Your task to perform on an android device: turn pop-ups off in chrome Image 0: 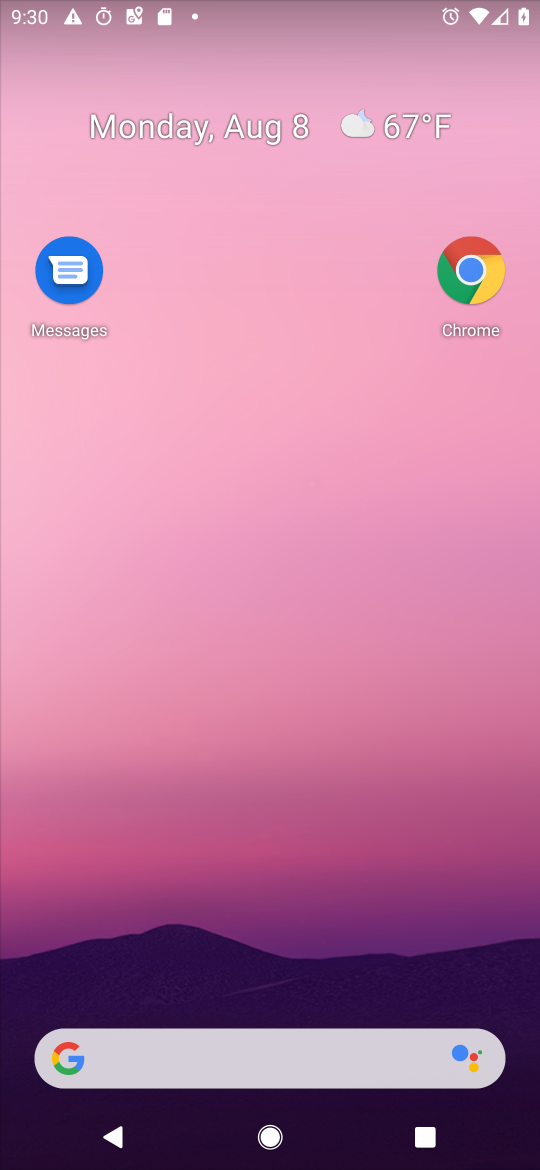
Step 0: click (446, 310)
Your task to perform on an android device: turn pop-ups off in chrome Image 1: 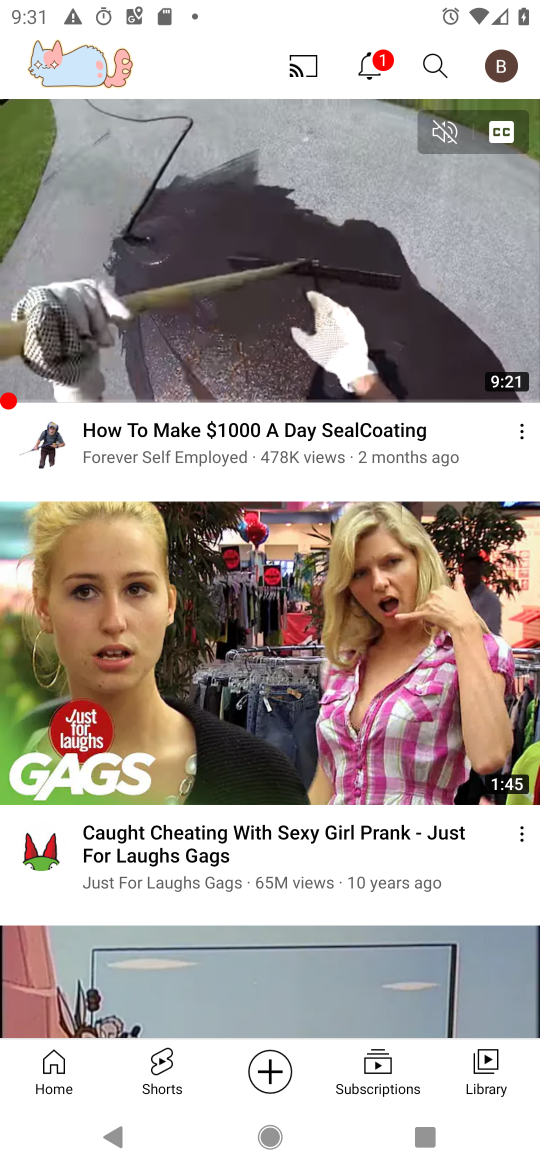
Step 1: drag from (360, 770) to (366, 437)
Your task to perform on an android device: turn pop-ups off in chrome Image 2: 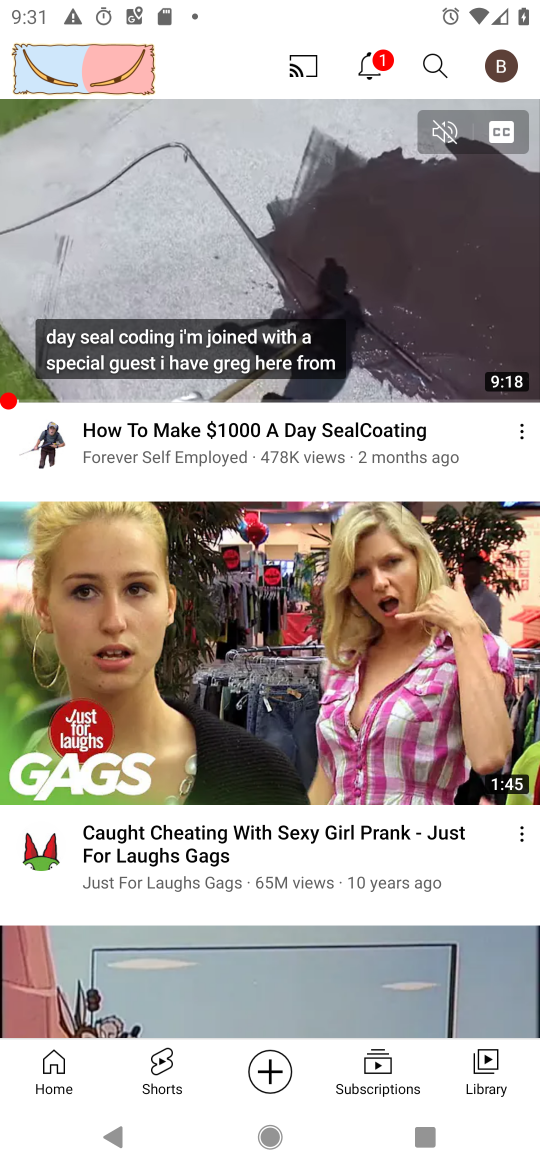
Step 2: press home button
Your task to perform on an android device: turn pop-ups off in chrome Image 3: 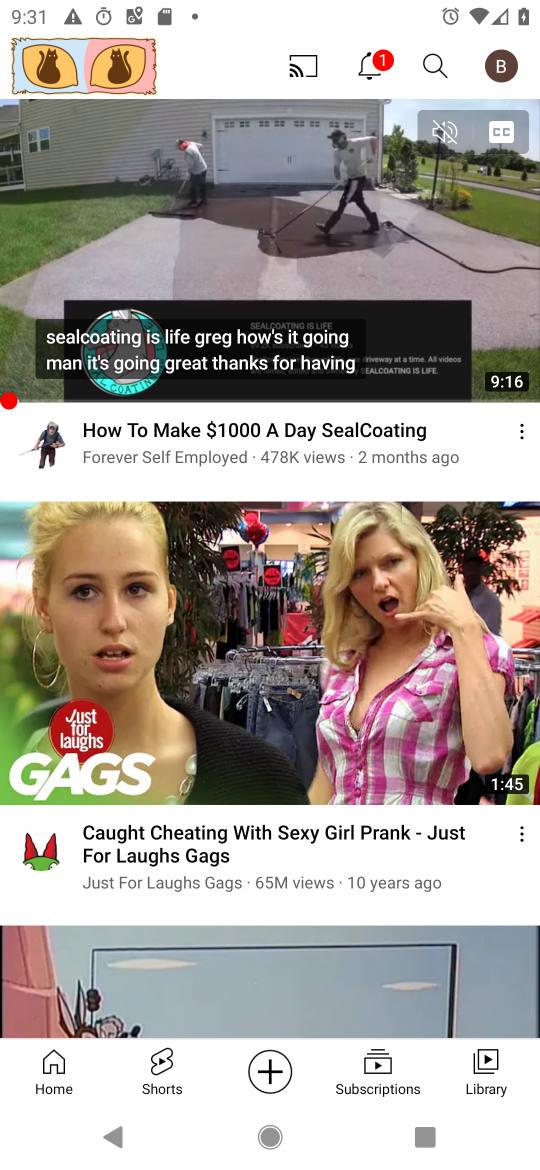
Step 3: drag from (186, 580) to (180, 377)
Your task to perform on an android device: turn pop-ups off in chrome Image 4: 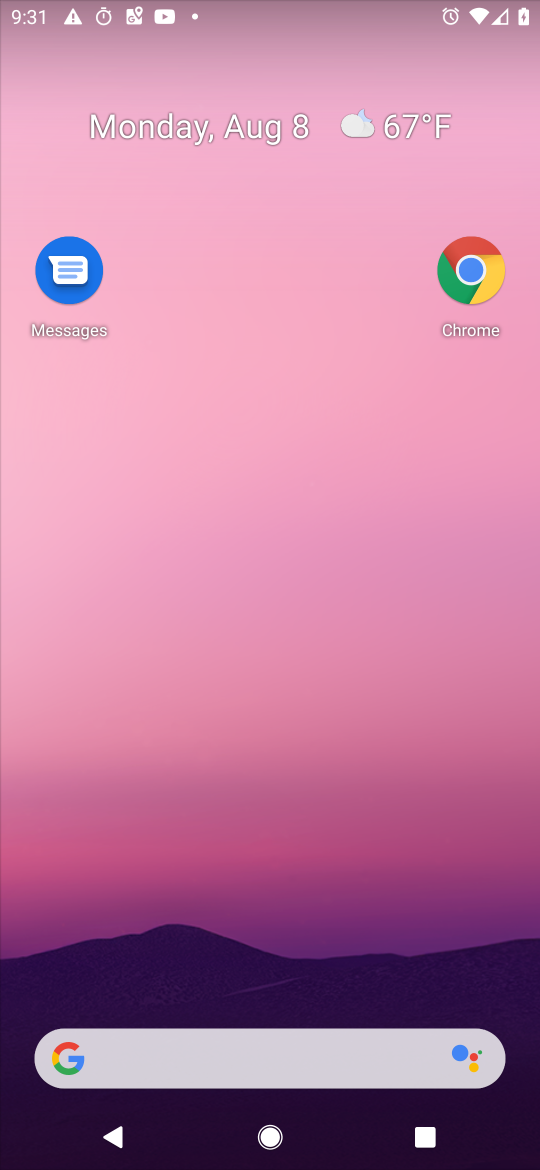
Step 4: click (470, 262)
Your task to perform on an android device: turn pop-ups off in chrome Image 5: 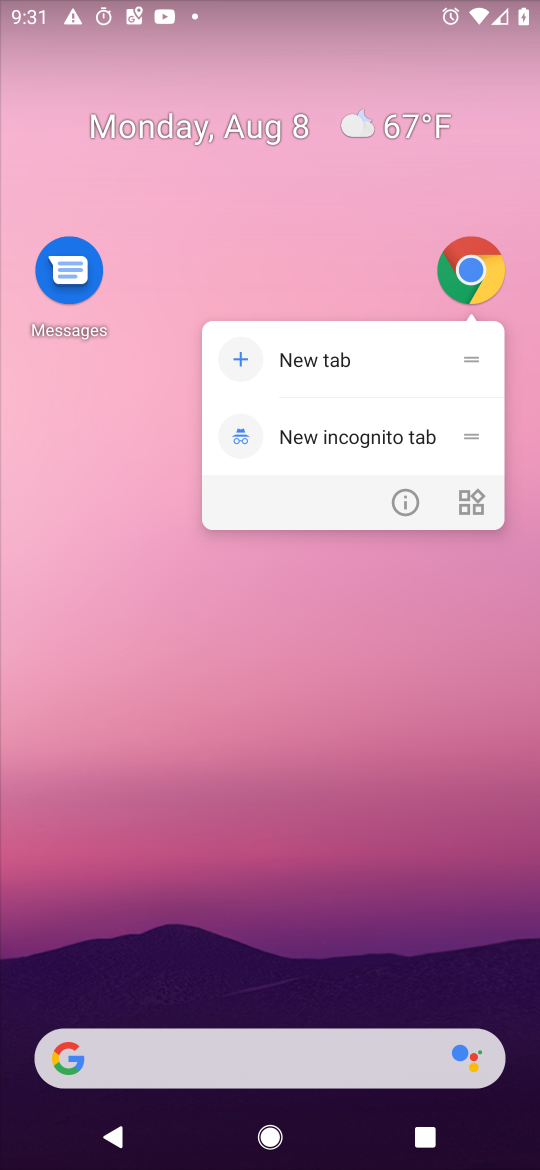
Step 5: click (403, 497)
Your task to perform on an android device: turn pop-ups off in chrome Image 6: 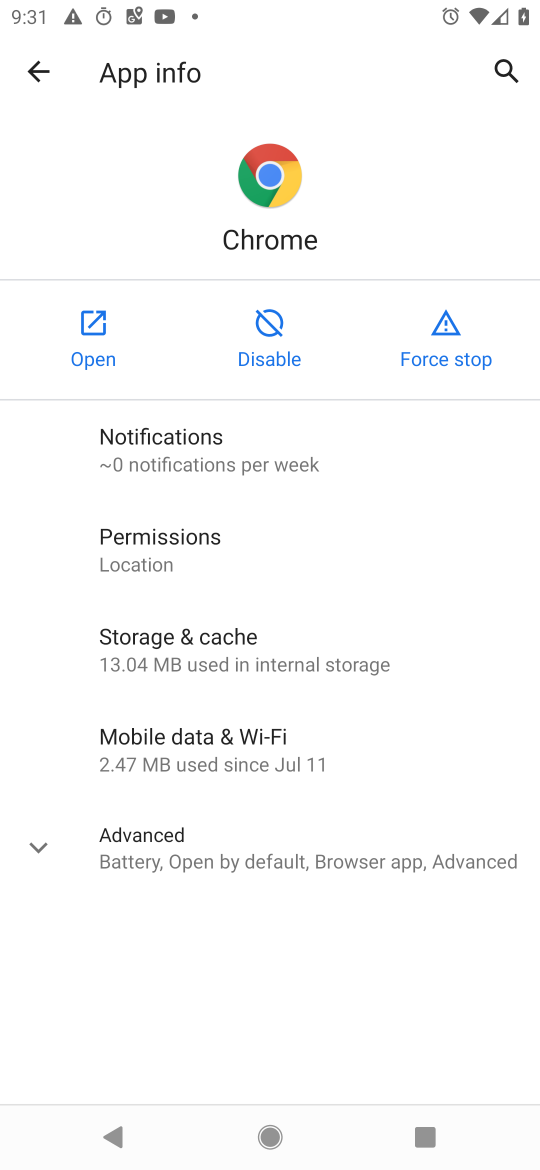
Step 6: click (69, 347)
Your task to perform on an android device: turn pop-ups off in chrome Image 7: 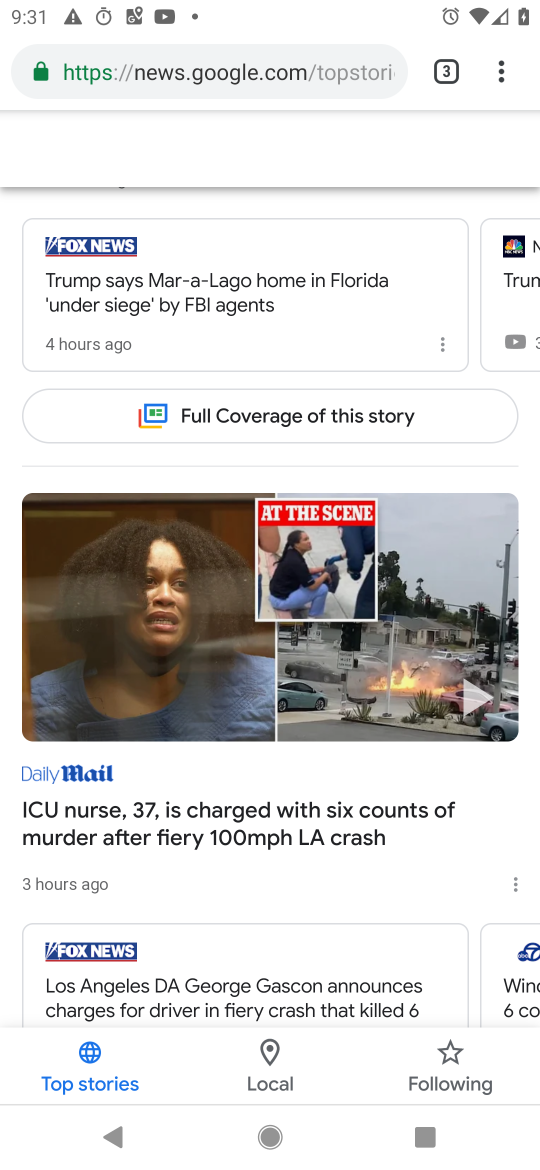
Step 7: drag from (501, 70) to (257, 840)
Your task to perform on an android device: turn pop-ups off in chrome Image 8: 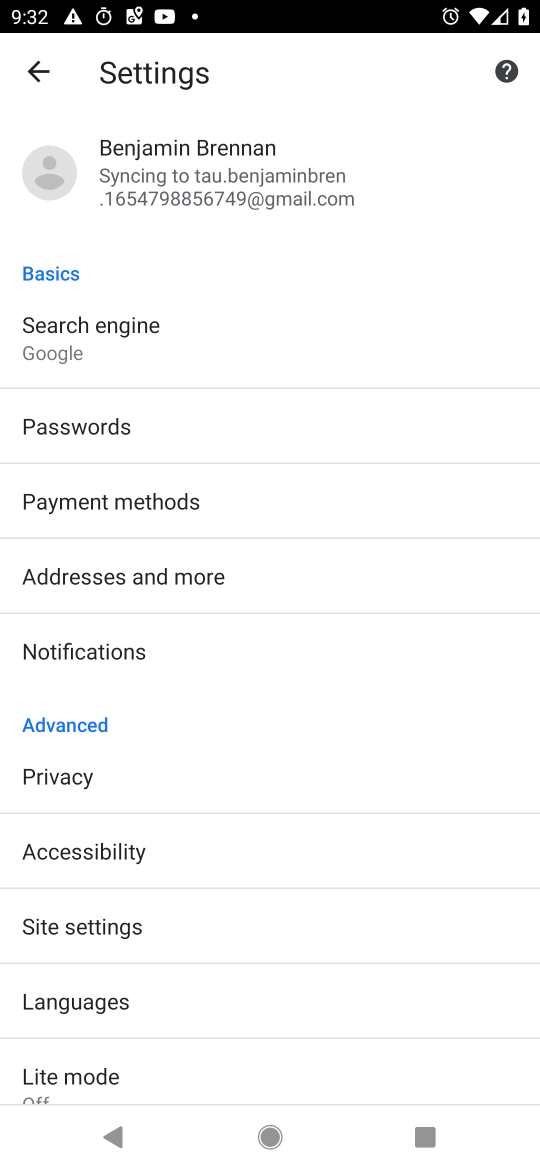
Step 8: drag from (249, 956) to (301, 492)
Your task to perform on an android device: turn pop-ups off in chrome Image 9: 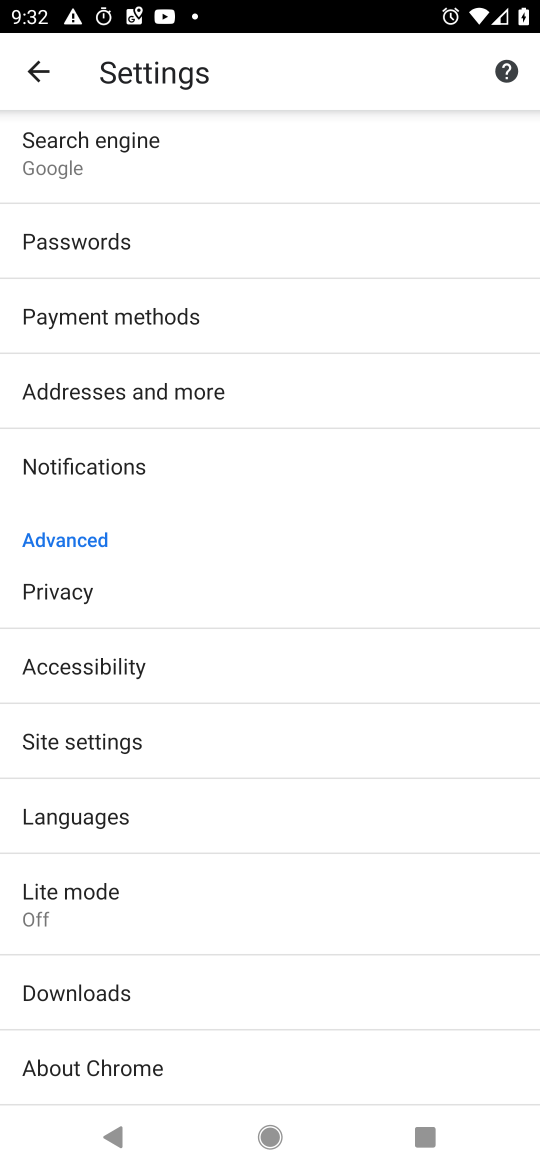
Step 9: click (170, 730)
Your task to perform on an android device: turn pop-ups off in chrome Image 10: 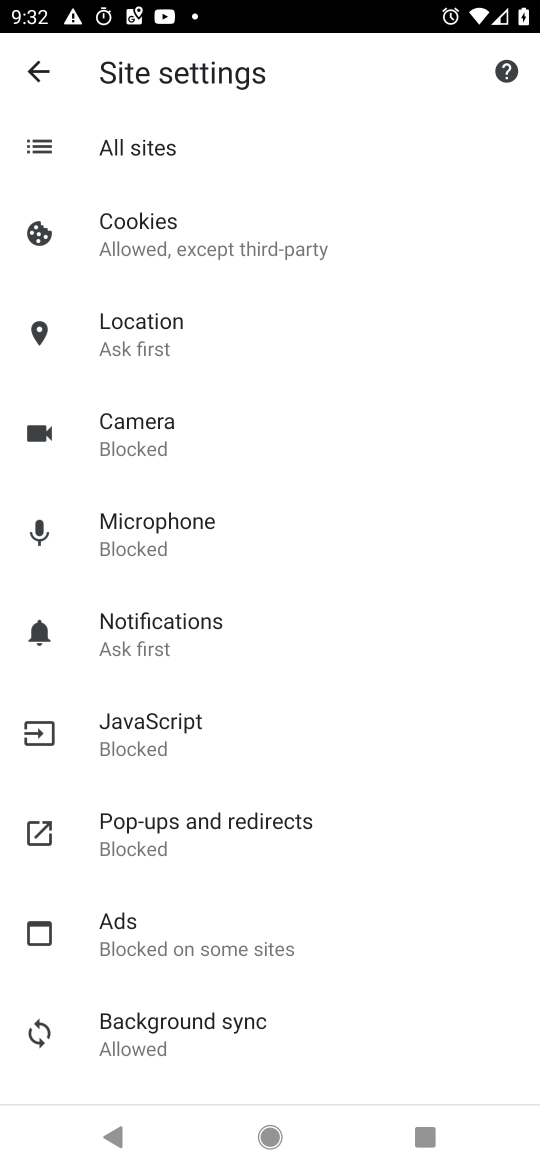
Step 10: click (188, 866)
Your task to perform on an android device: turn pop-ups off in chrome Image 11: 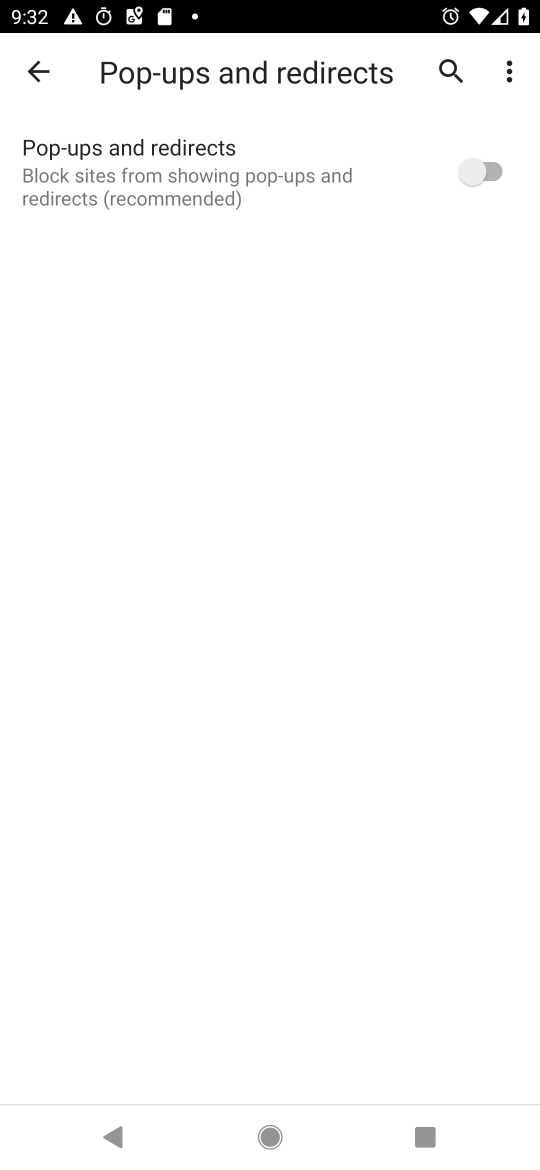
Step 11: task complete